Your task to perform on an android device: Open my contact list Image 0: 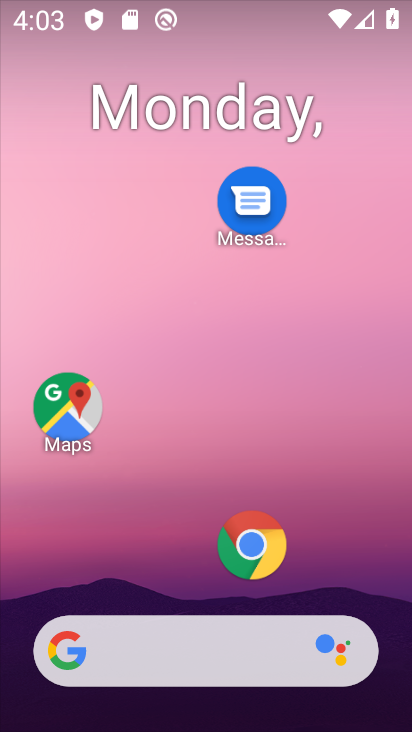
Step 0: drag from (209, 586) to (271, 61)
Your task to perform on an android device: Open my contact list Image 1: 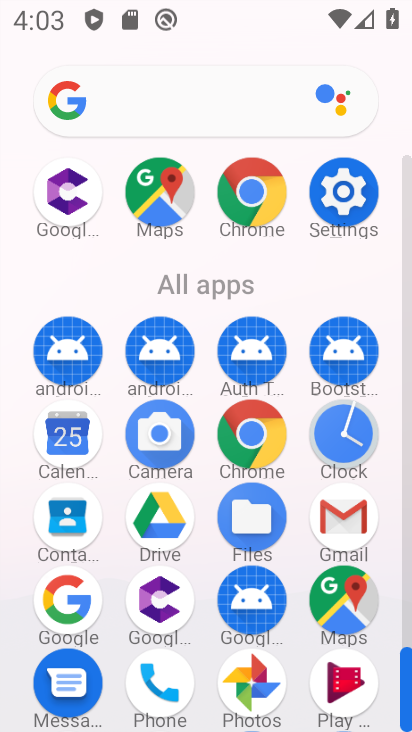
Step 1: click (64, 507)
Your task to perform on an android device: Open my contact list Image 2: 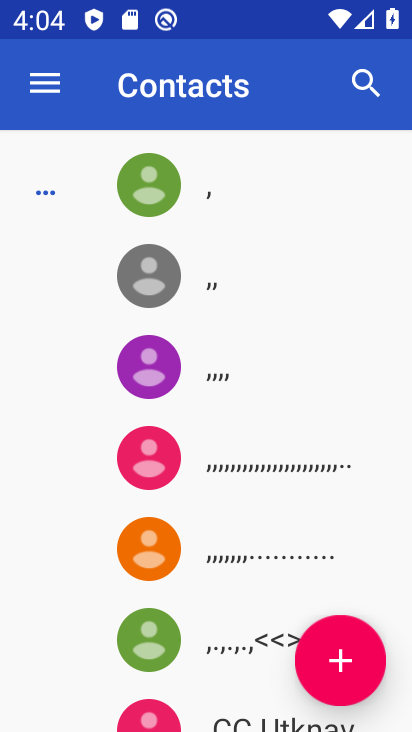
Step 2: task complete